Your task to perform on an android device: turn on improve location accuracy Image 0: 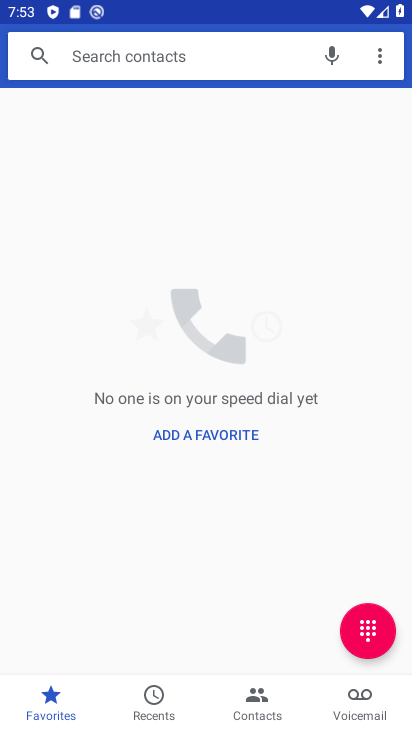
Step 0: press home button
Your task to perform on an android device: turn on improve location accuracy Image 1: 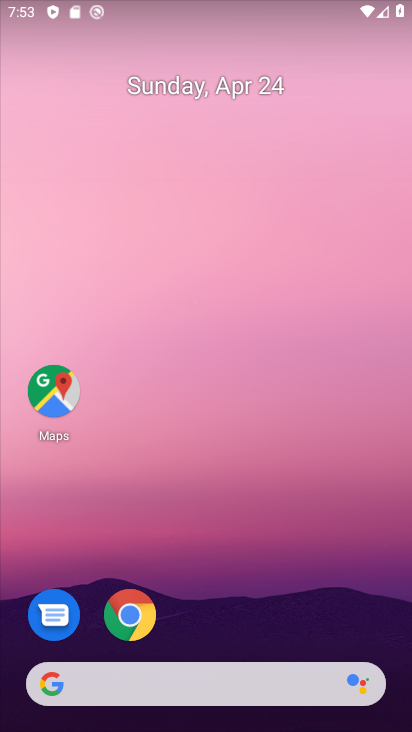
Step 1: drag from (254, 594) to (315, 47)
Your task to perform on an android device: turn on improve location accuracy Image 2: 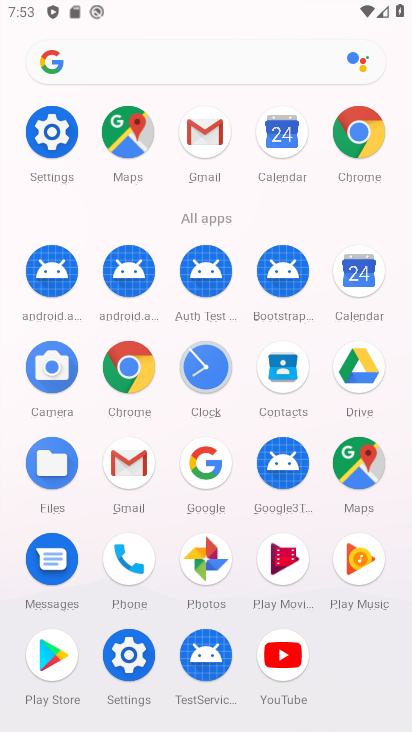
Step 2: click (67, 128)
Your task to perform on an android device: turn on improve location accuracy Image 3: 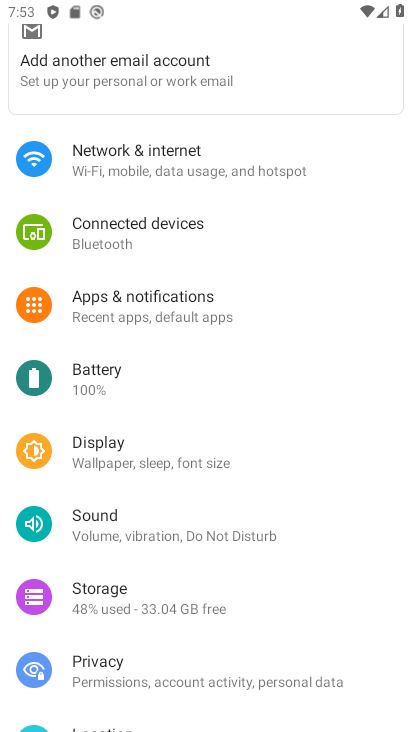
Step 3: drag from (236, 597) to (262, 159)
Your task to perform on an android device: turn on improve location accuracy Image 4: 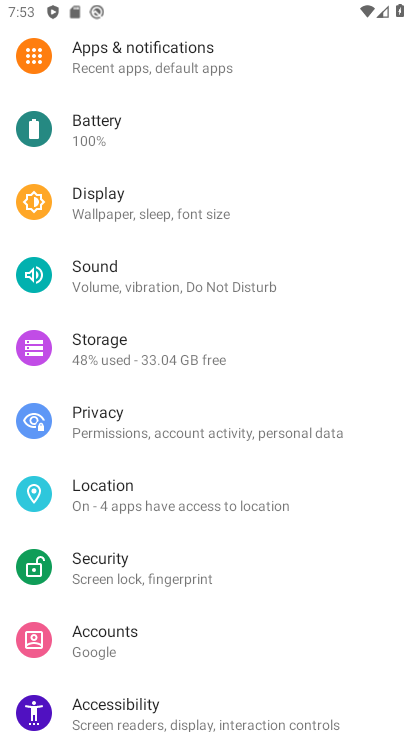
Step 4: click (184, 495)
Your task to perform on an android device: turn on improve location accuracy Image 5: 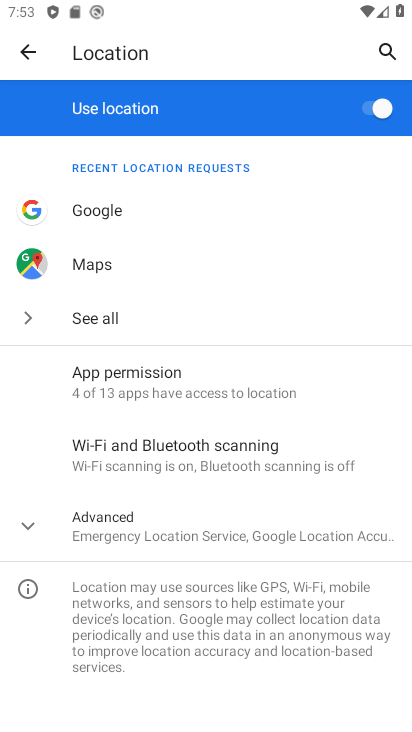
Step 5: click (175, 515)
Your task to perform on an android device: turn on improve location accuracy Image 6: 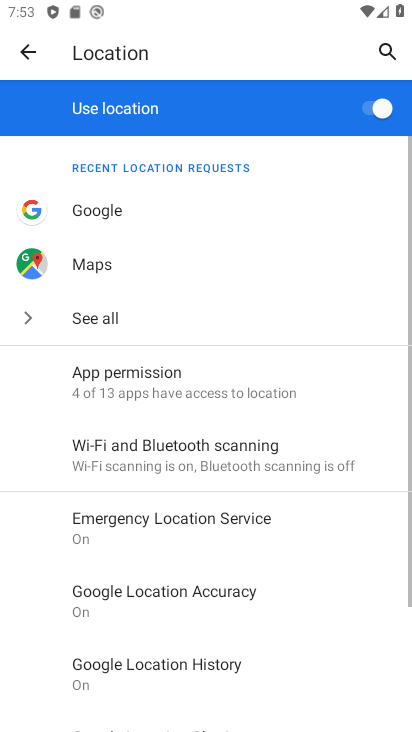
Step 6: drag from (174, 514) to (199, 119)
Your task to perform on an android device: turn on improve location accuracy Image 7: 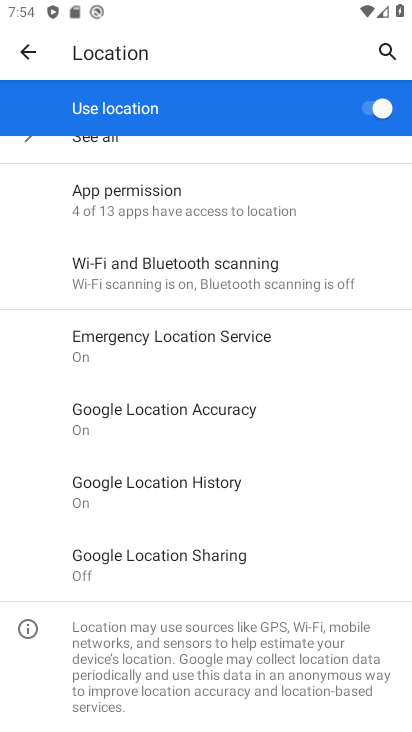
Step 7: click (187, 406)
Your task to perform on an android device: turn on improve location accuracy Image 8: 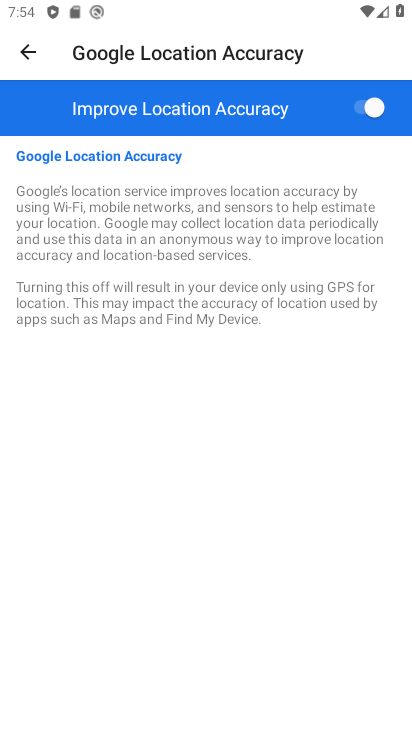
Step 8: task complete